Your task to perform on an android device: install app "Google Translate" Image 0: 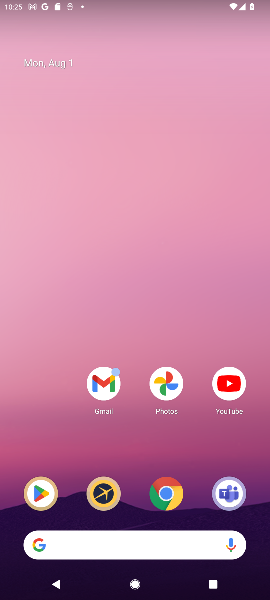
Step 0: task complete